Your task to perform on an android device: Add "logitech g903" to the cart on bestbuy, then select checkout. Image 0: 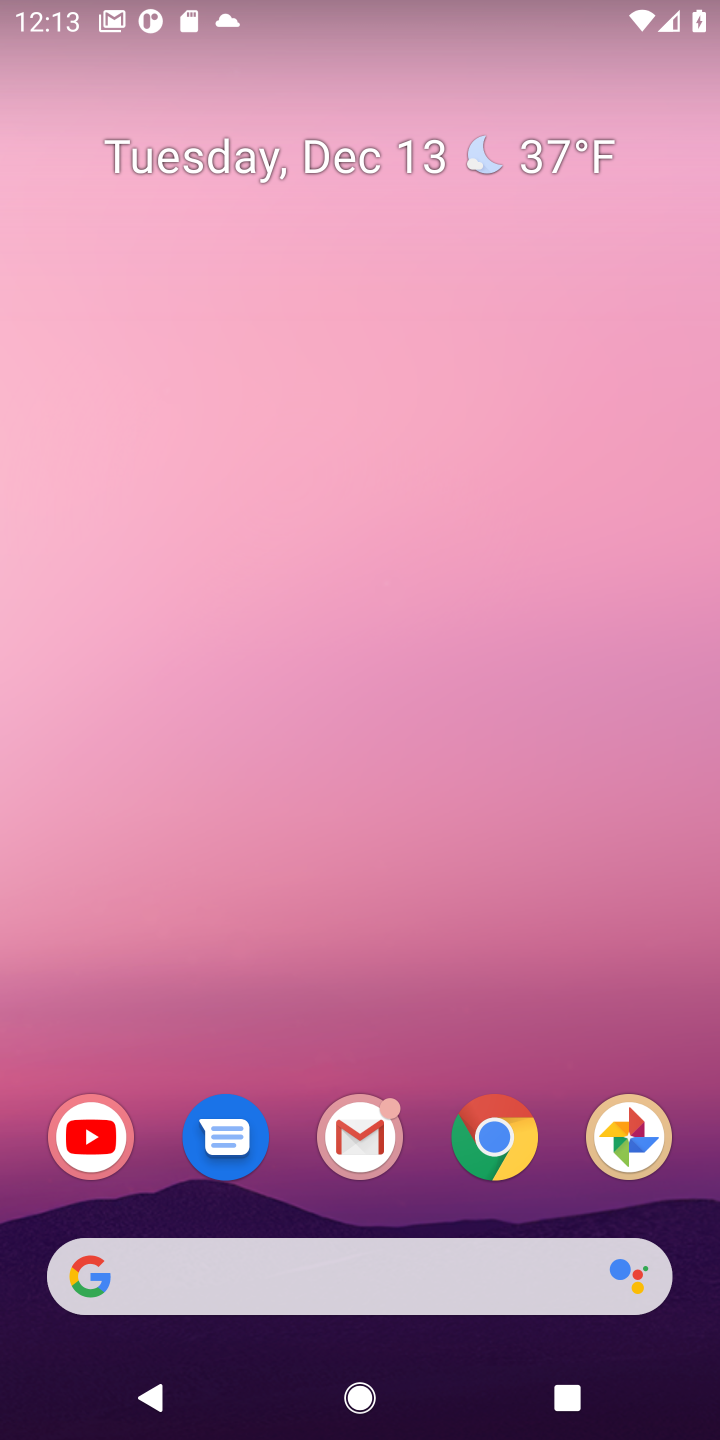
Step 0: click (379, 1283)
Your task to perform on an android device: Add "logitech g903" to the cart on bestbuy, then select checkout. Image 1: 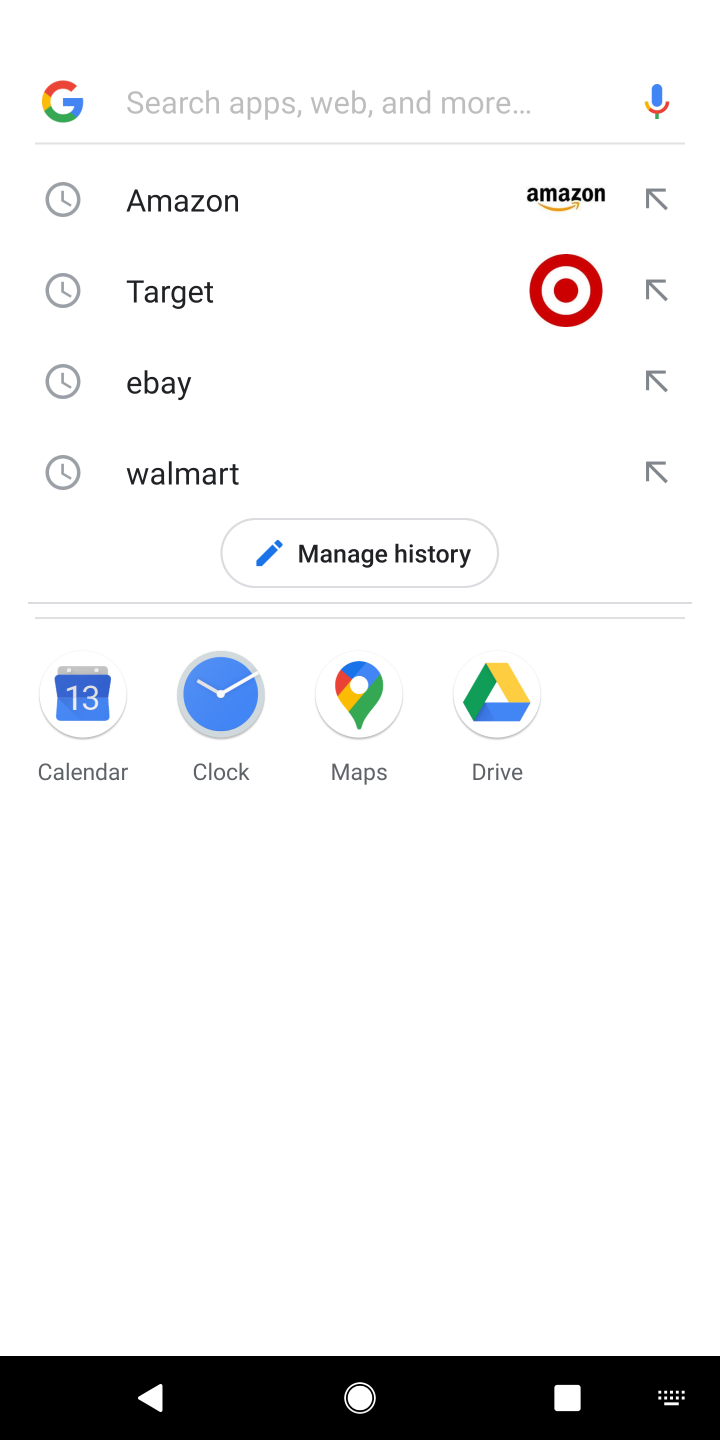
Step 1: type "bestbuy"
Your task to perform on an android device: Add "logitech g903" to the cart on bestbuy, then select checkout. Image 2: 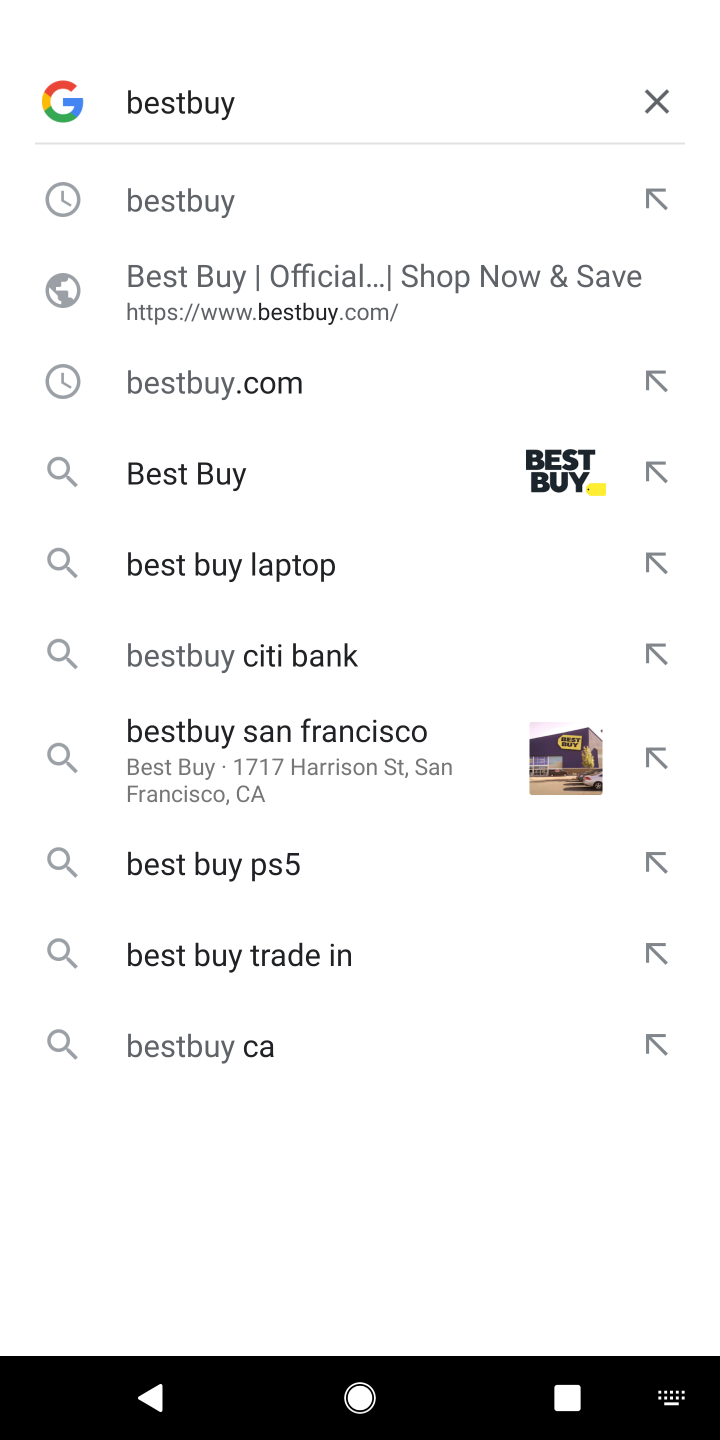
Step 2: click (240, 231)
Your task to perform on an android device: Add "logitech g903" to the cart on bestbuy, then select checkout. Image 3: 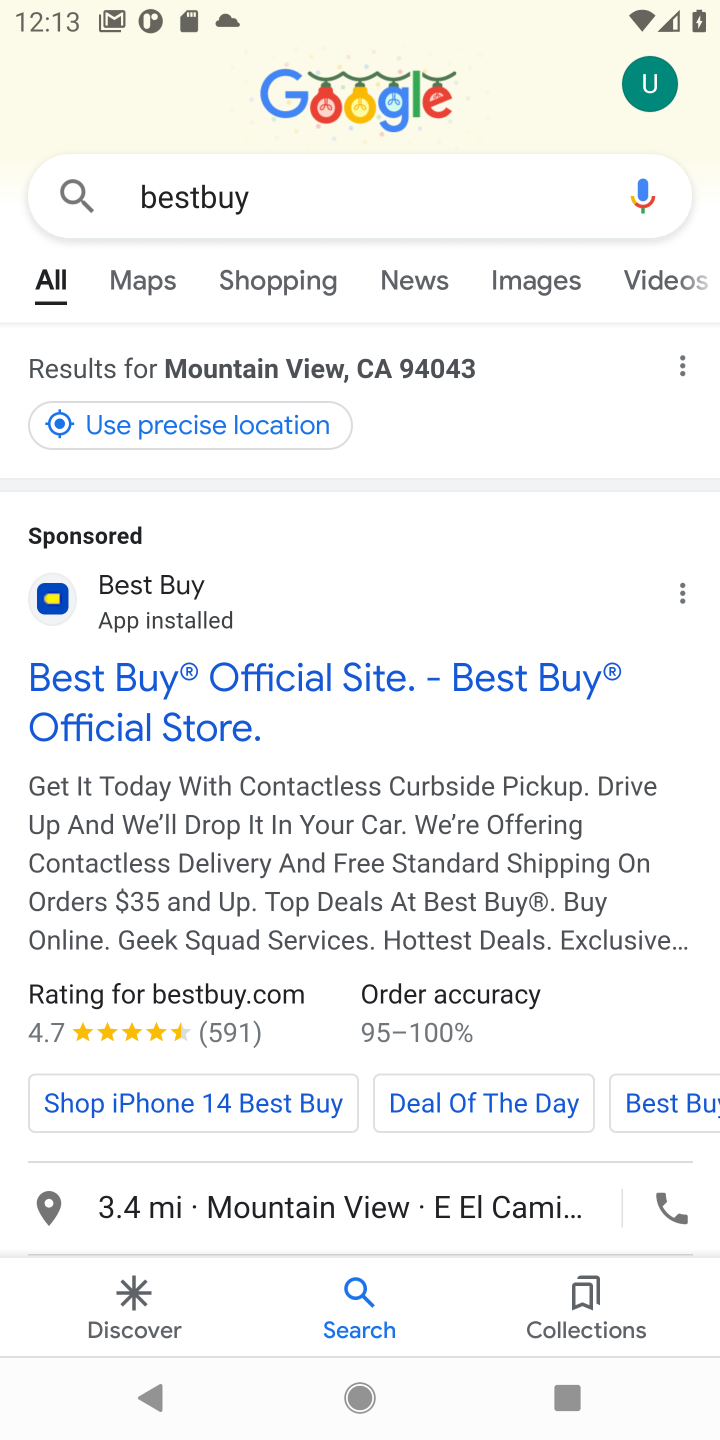
Step 3: click (229, 728)
Your task to perform on an android device: Add "logitech g903" to the cart on bestbuy, then select checkout. Image 4: 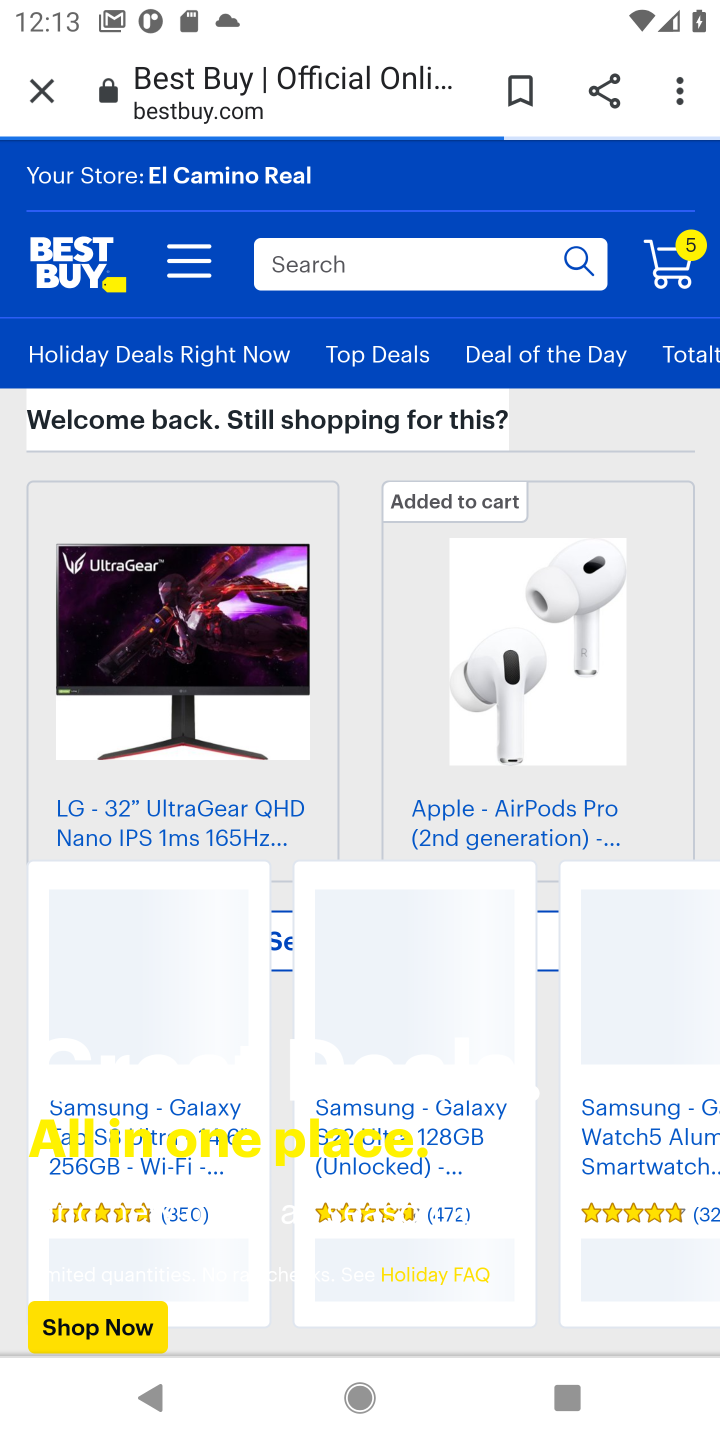
Step 4: click (313, 280)
Your task to perform on an android device: Add "logitech g903" to the cart on bestbuy, then select checkout. Image 5: 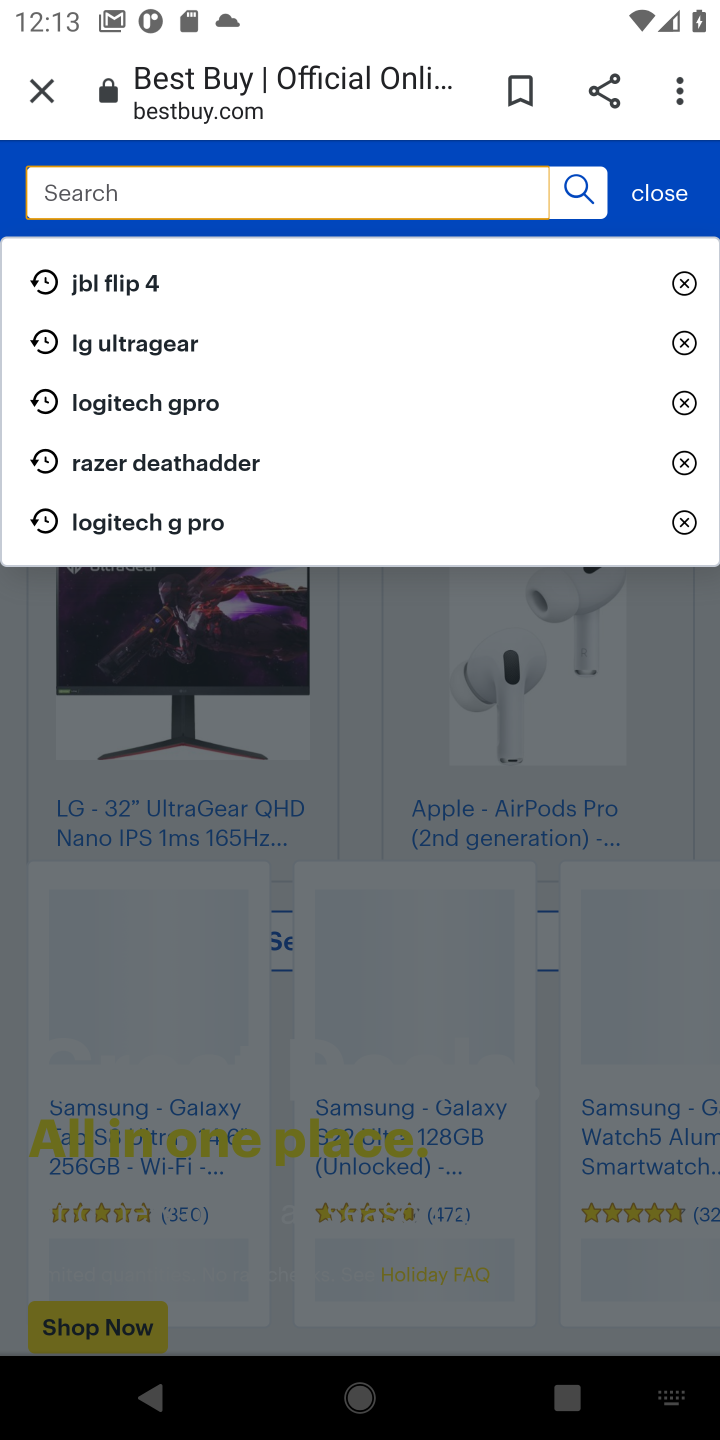
Step 5: type "bestbuy"
Your task to perform on an android device: Add "logitech g903" to the cart on bestbuy, then select checkout. Image 6: 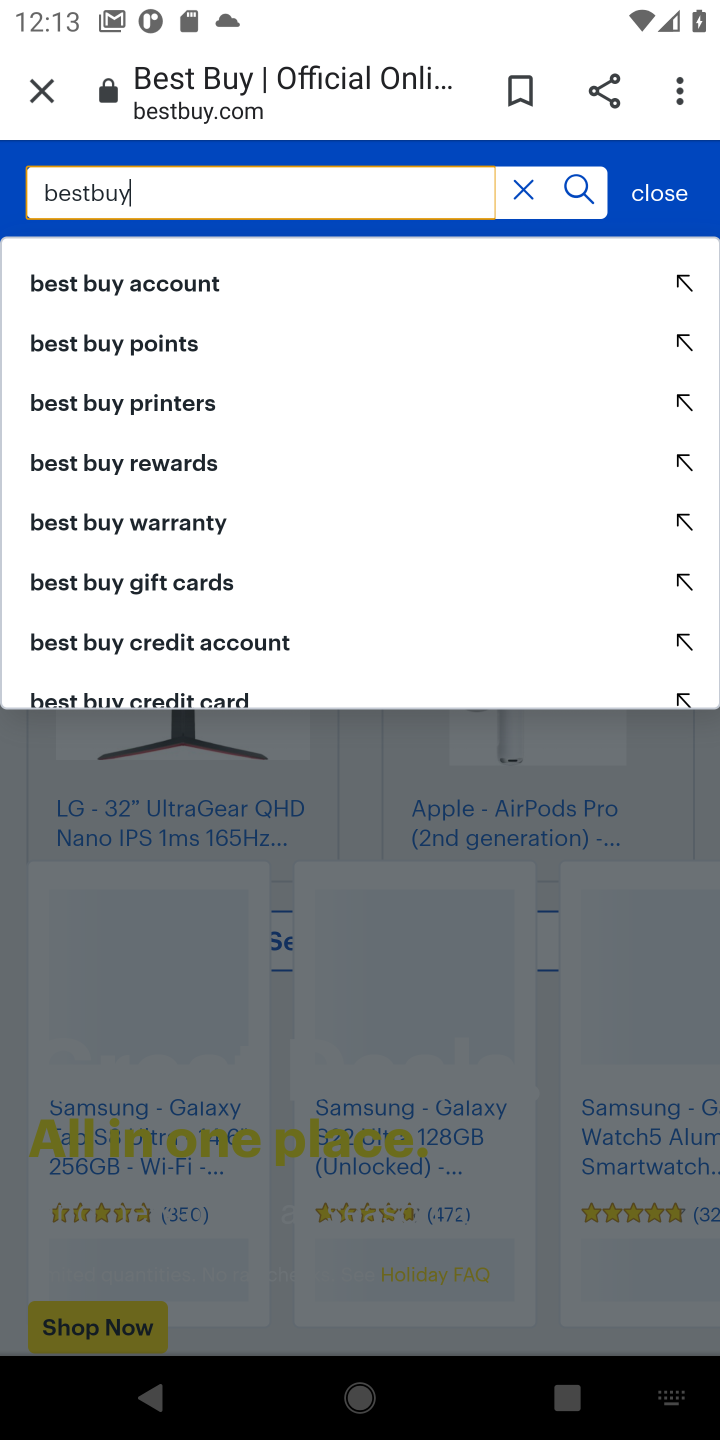
Step 6: click (587, 218)
Your task to perform on an android device: Add "logitech g903" to the cart on bestbuy, then select checkout. Image 7: 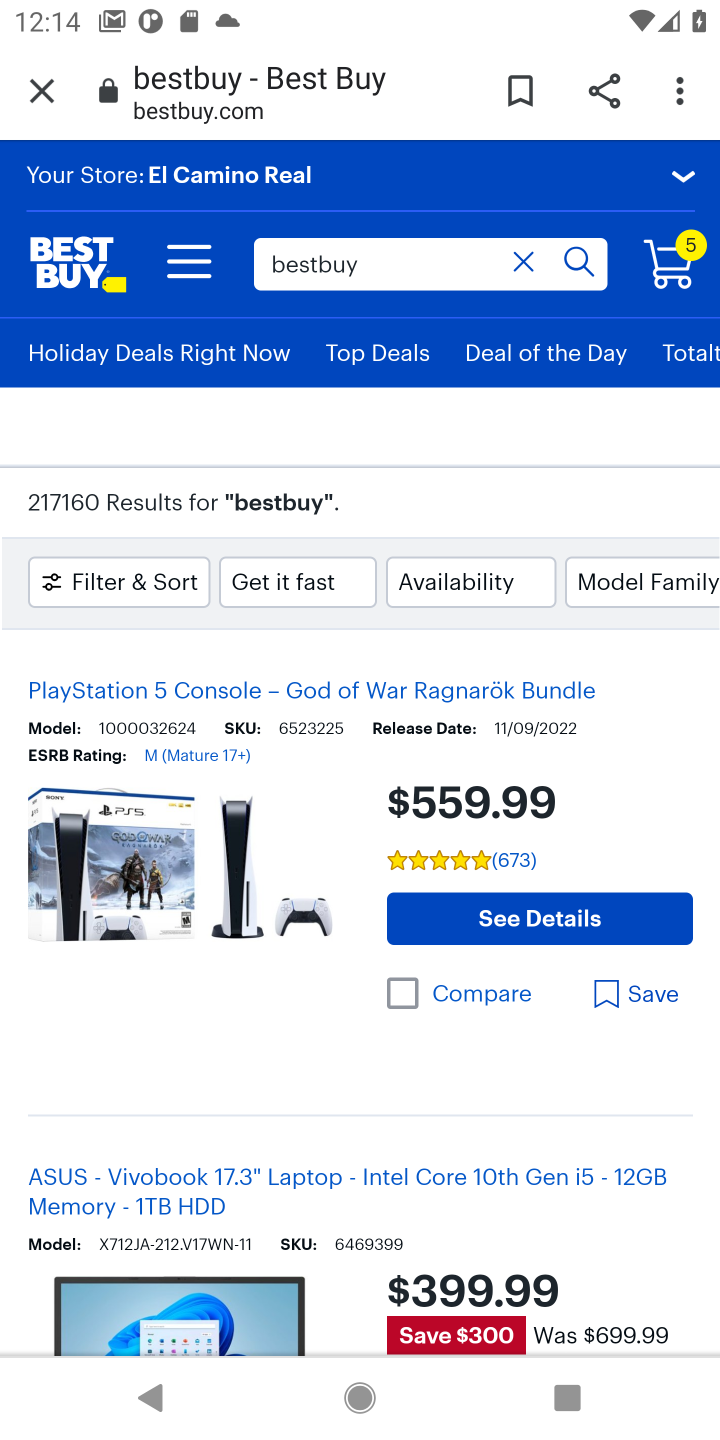
Step 7: click (529, 261)
Your task to perform on an android device: Add "logitech g903" to the cart on bestbuy, then select checkout. Image 8: 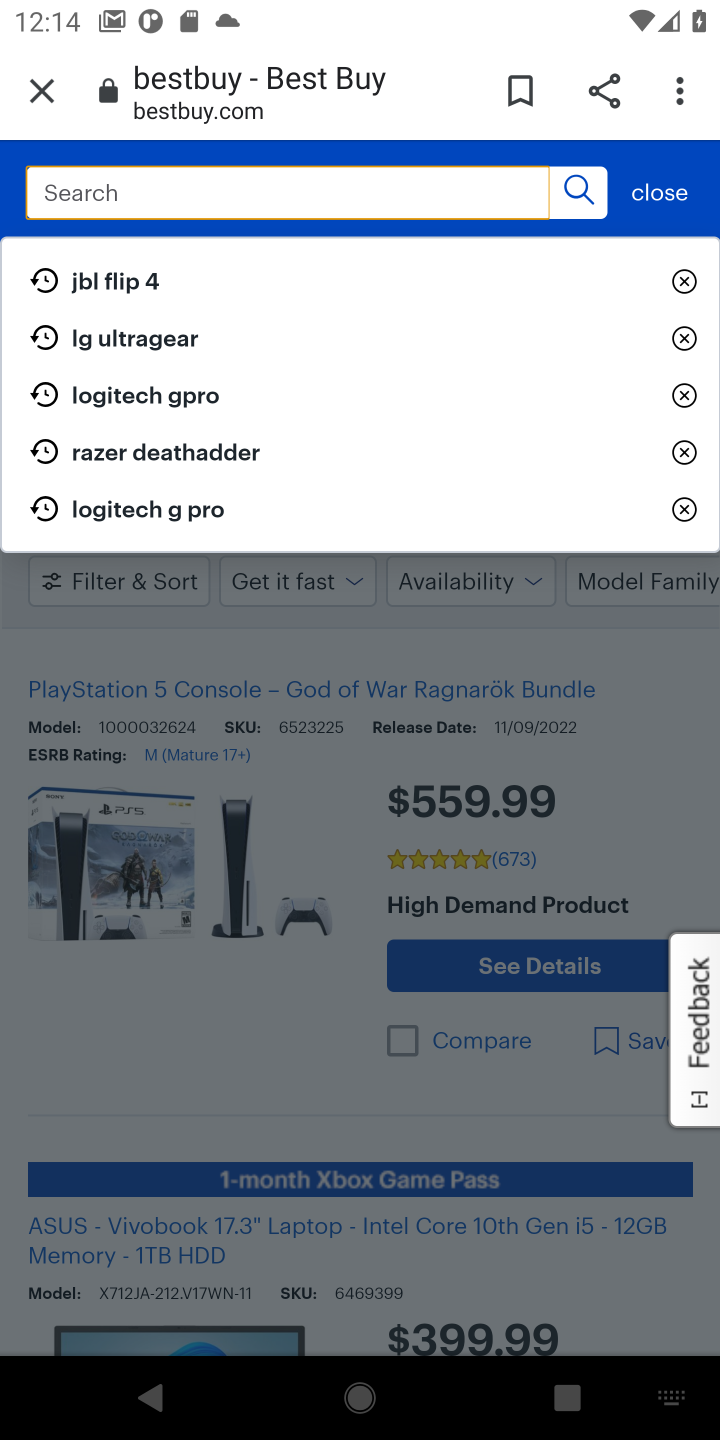
Step 8: type "logitech g903"
Your task to perform on an android device: Add "logitech g903" to the cart on bestbuy, then select checkout. Image 9: 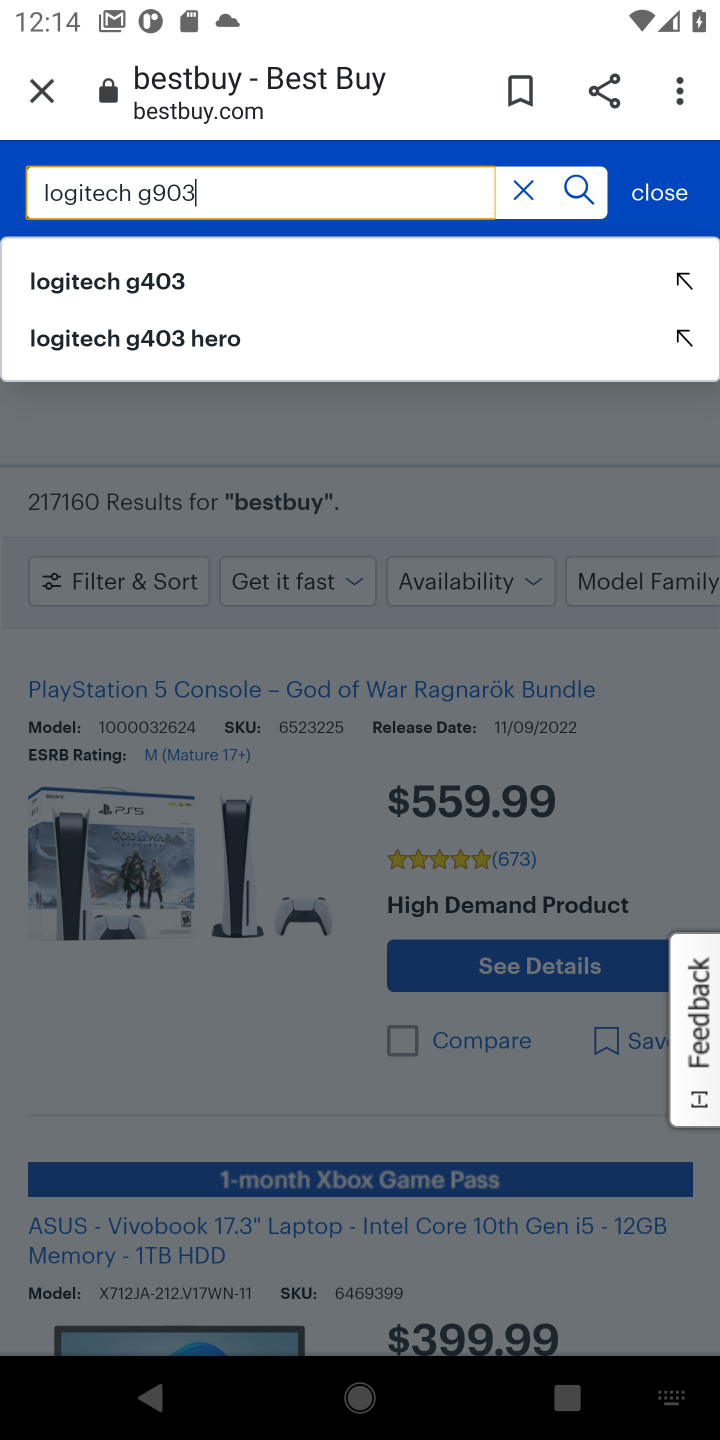
Step 9: click (583, 170)
Your task to perform on an android device: Add "logitech g903" to the cart on bestbuy, then select checkout. Image 10: 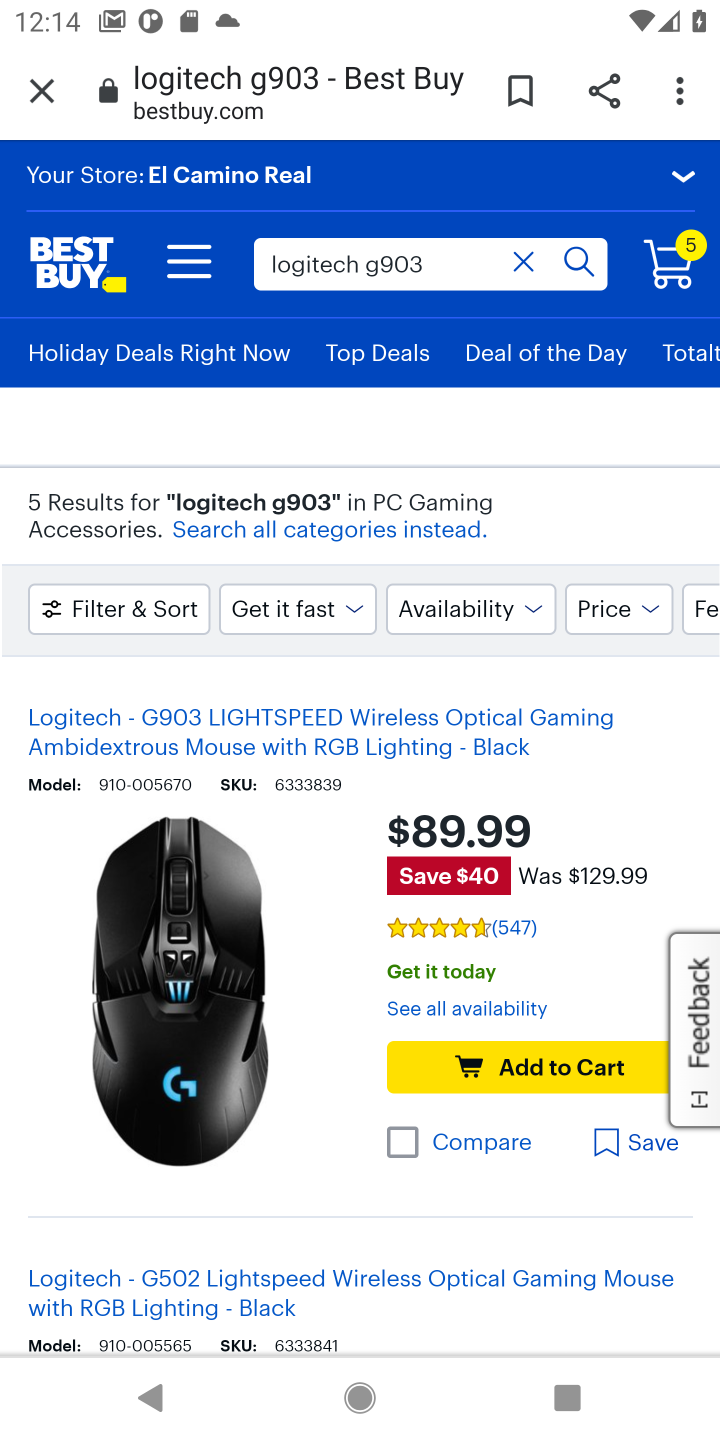
Step 10: click (449, 1060)
Your task to perform on an android device: Add "logitech g903" to the cart on bestbuy, then select checkout. Image 11: 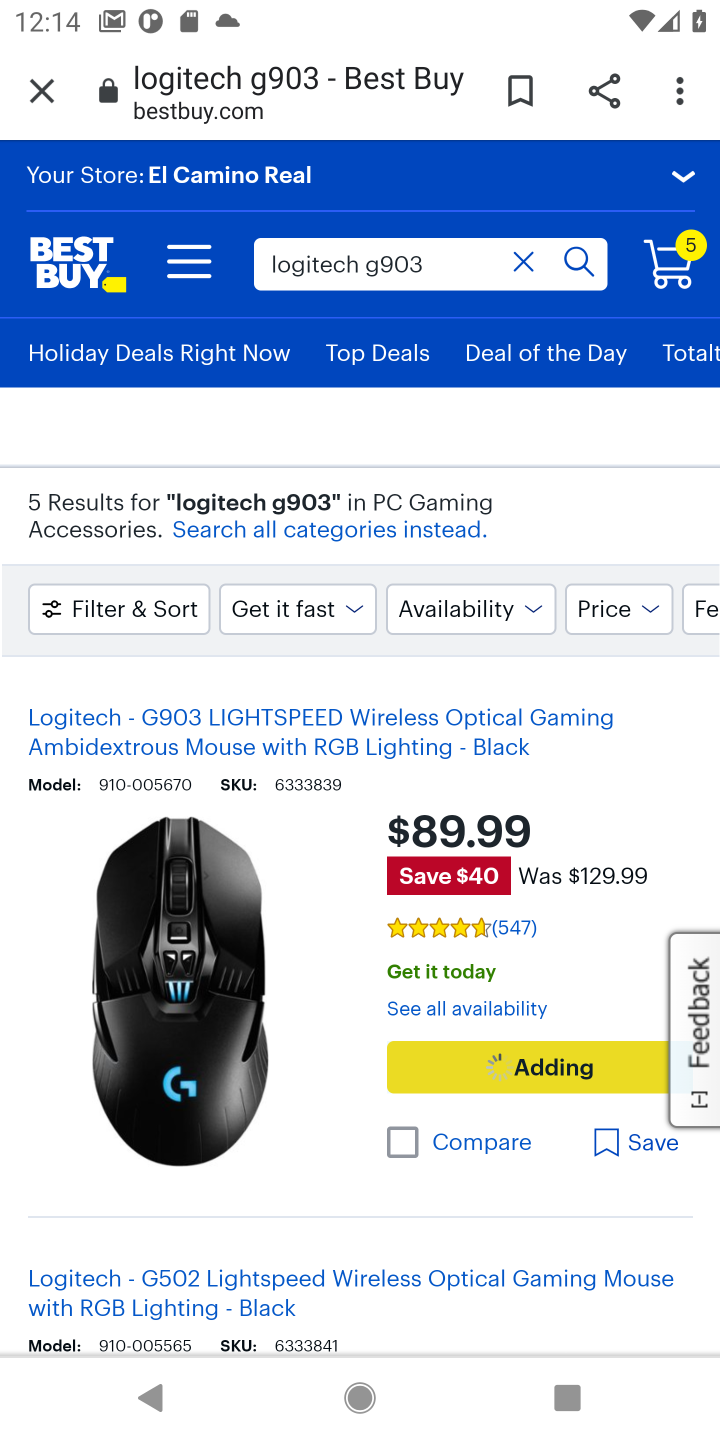
Step 11: task complete